Your task to perform on an android device: open app "Lyft - Rideshare, Bikes, Scooters & Transit" (install if not already installed) Image 0: 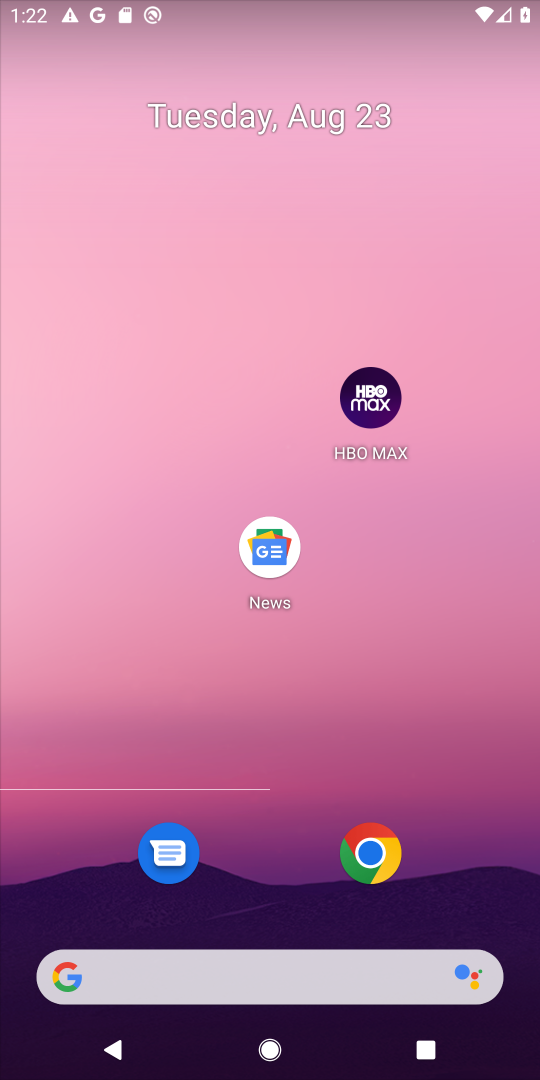
Step 0: drag from (518, 958) to (475, 202)
Your task to perform on an android device: open app "Lyft - Rideshare, Bikes, Scooters & Transit" (install if not already installed) Image 1: 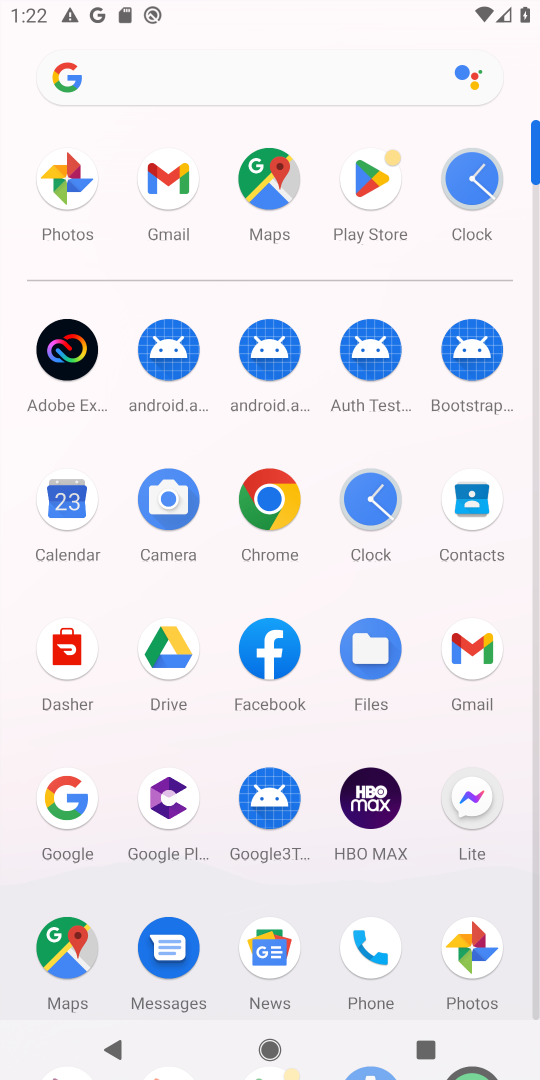
Step 1: click (537, 977)
Your task to perform on an android device: open app "Lyft - Rideshare, Bikes, Scooters & Transit" (install if not already installed) Image 2: 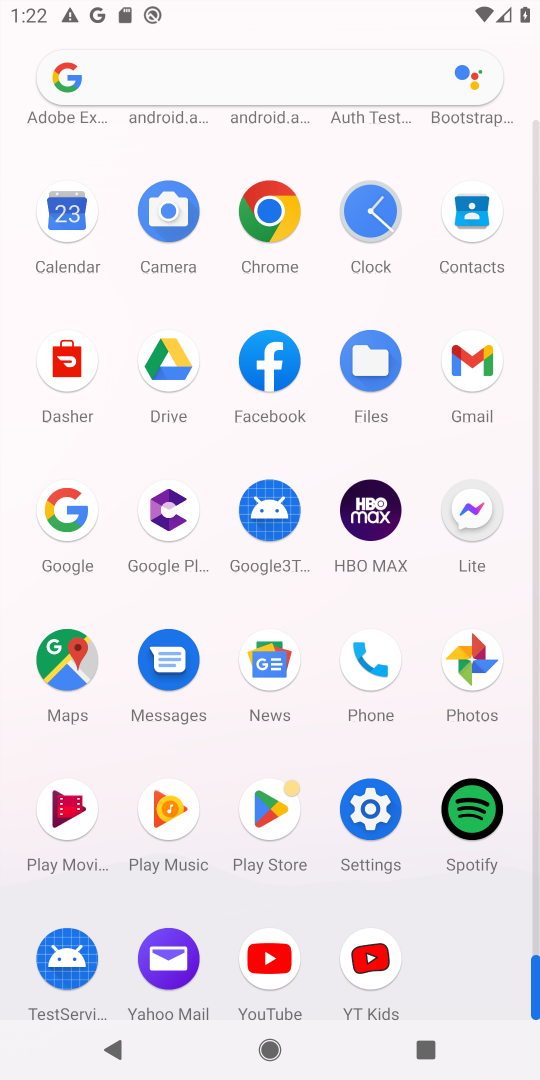
Step 2: click (270, 806)
Your task to perform on an android device: open app "Lyft - Rideshare, Bikes, Scooters & Transit" (install if not already installed) Image 3: 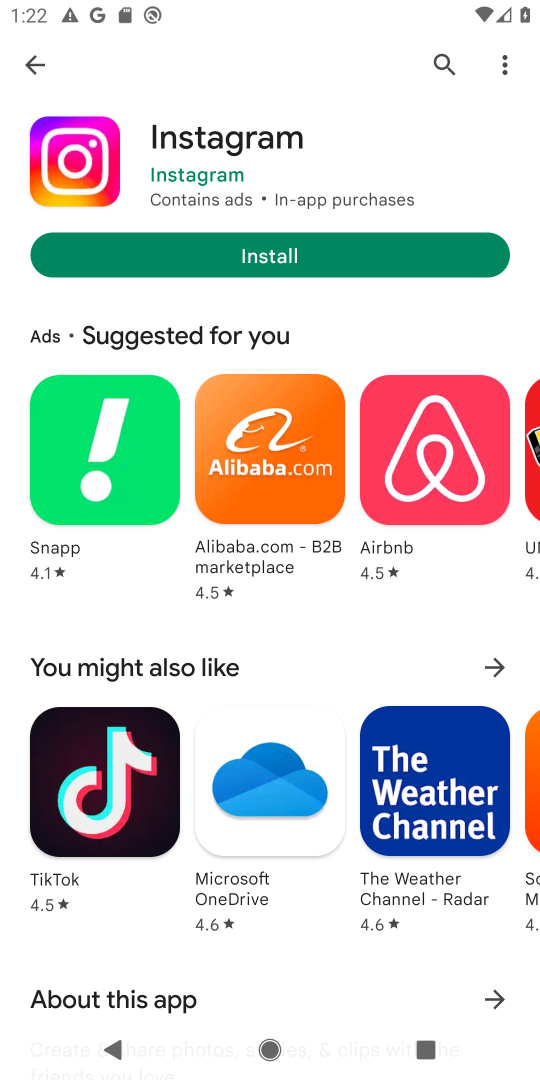
Step 3: click (448, 66)
Your task to perform on an android device: open app "Lyft - Rideshare, Bikes, Scooters & Transit" (install if not already installed) Image 4: 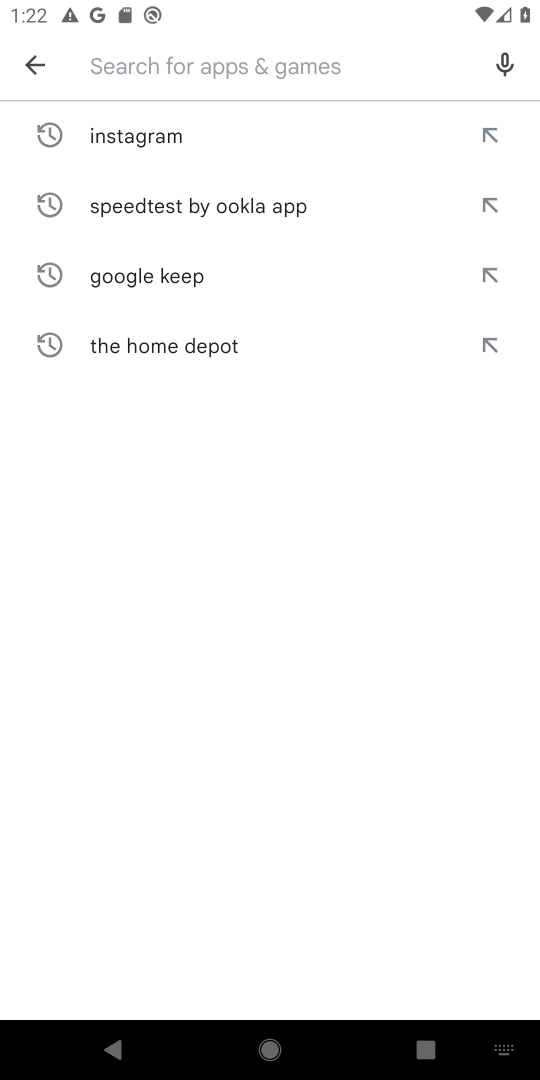
Step 4: type "Lyft - Rideshare, Bikes, Scooters & Transit"
Your task to perform on an android device: open app "Lyft - Rideshare, Bikes, Scooters & Transit" (install if not already installed) Image 5: 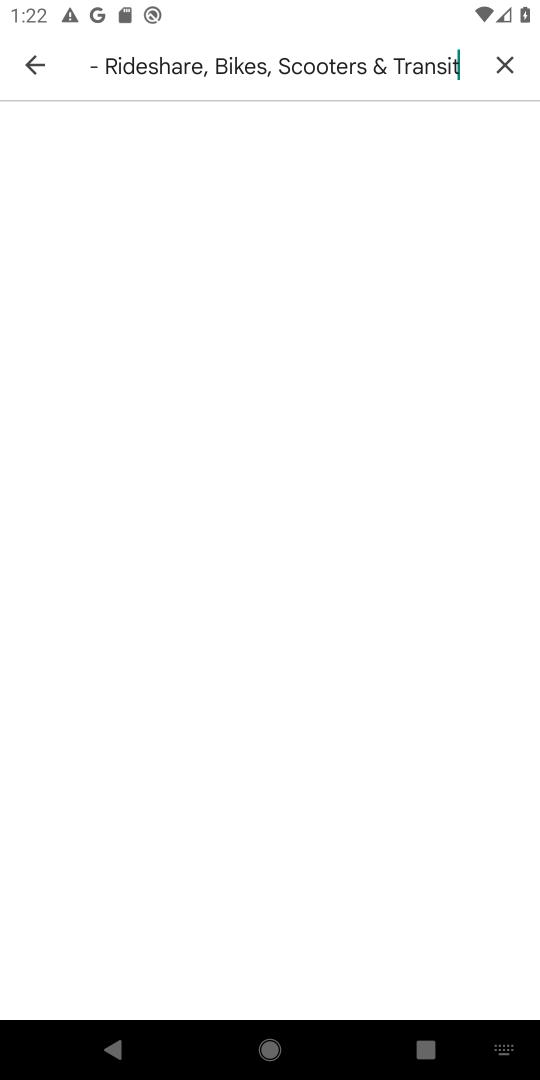
Step 5: task complete